Your task to perform on an android device: toggle location history Image 0: 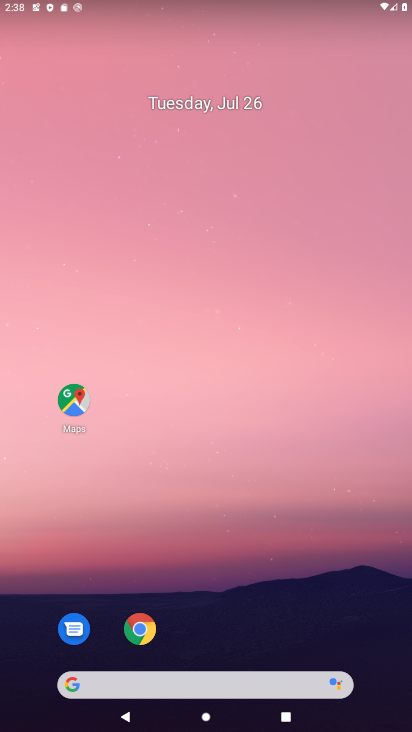
Step 0: drag from (218, 660) to (231, 198)
Your task to perform on an android device: toggle location history Image 1: 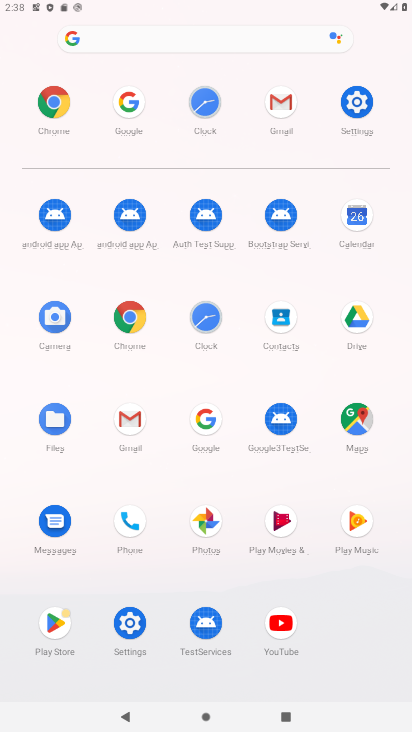
Step 1: click (348, 117)
Your task to perform on an android device: toggle location history Image 2: 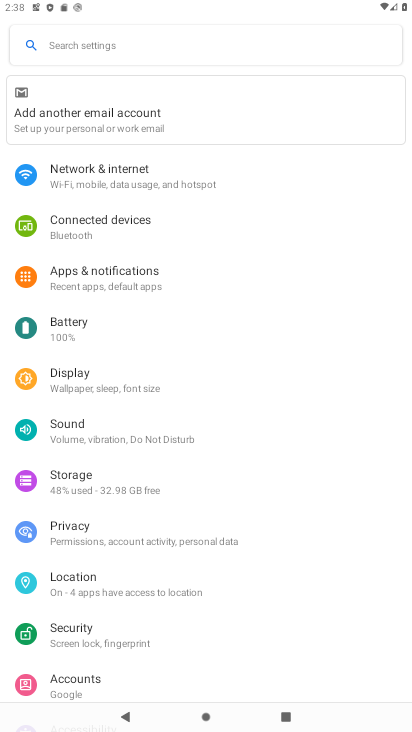
Step 2: click (135, 587)
Your task to perform on an android device: toggle location history Image 3: 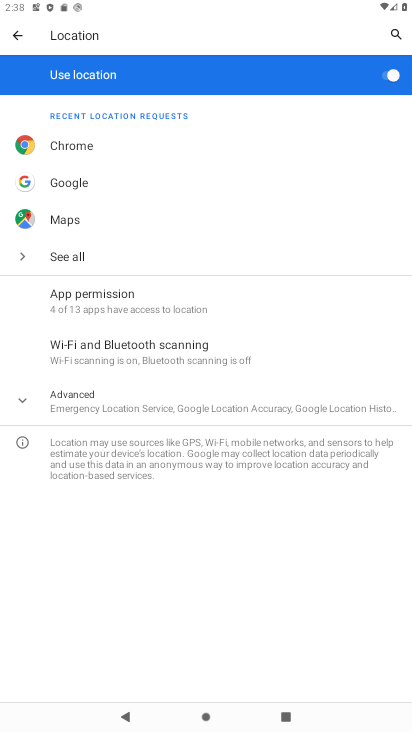
Step 3: click (134, 407)
Your task to perform on an android device: toggle location history Image 4: 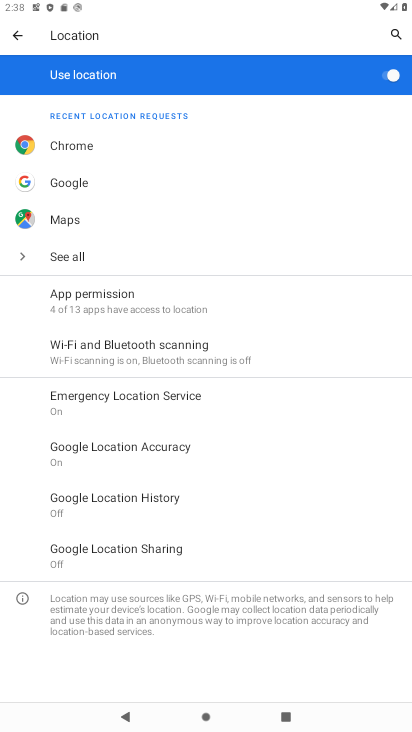
Step 4: click (159, 495)
Your task to perform on an android device: toggle location history Image 5: 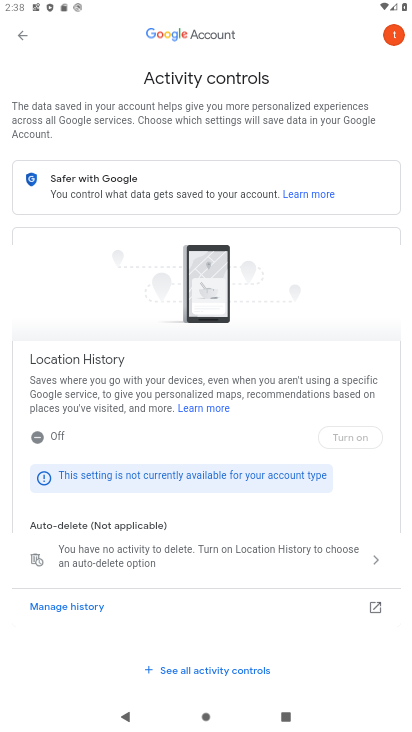
Step 5: click (329, 437)
Your task to perform on an android device: toggle location history Image 6: 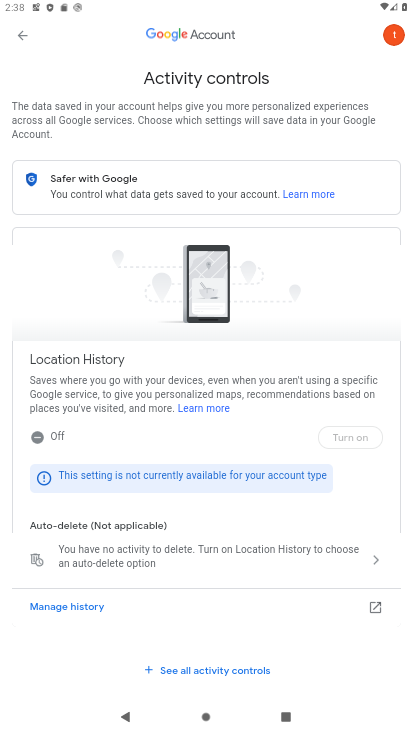
Step 6: task complete